Your task to perform on an android device: Open Reddit.com Image 0: 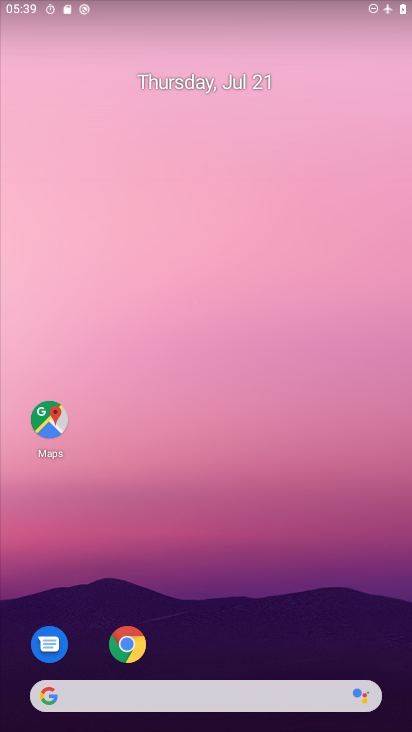
Step 0: click (124, 654)
Your task to perform on an android device: Open Reddit.com Image 1: 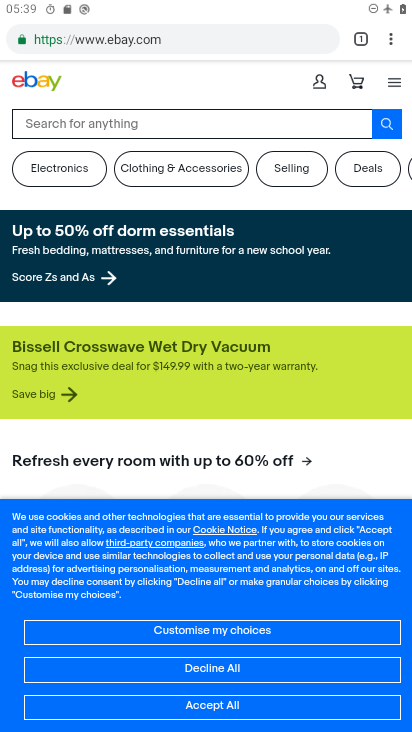
Step 1: click (135, 47)
Your task to perform on an android device: Open Reddit.com Image 2: 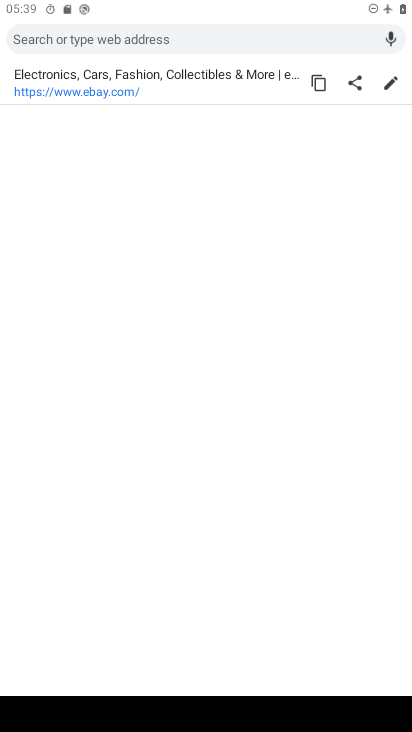
Step 2: type "www.reddit.com"
Your task to perform on an android device: Open Reddit.com Image 3: 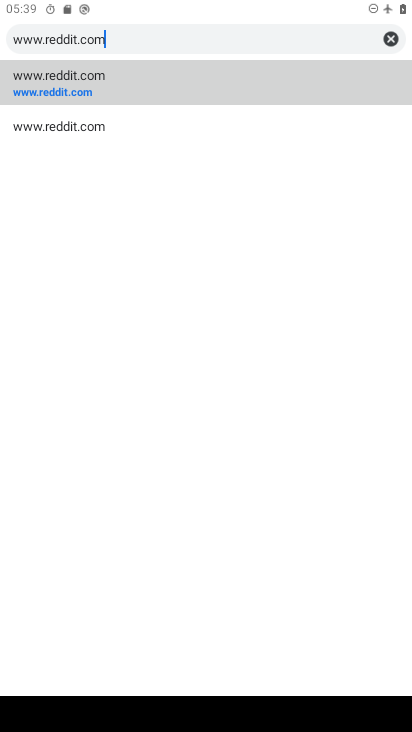
Step 3: click (79, 94)
Your task to perform on an android device: Open Reddit.com Image 4: 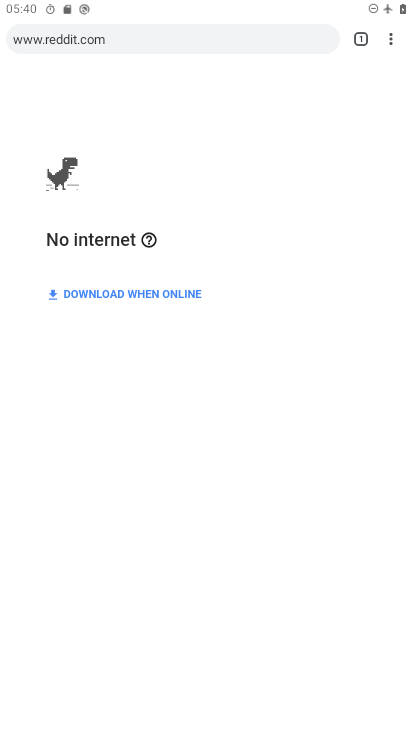
Step 4: task complete